Your task to perform on an android device: Go to accessibility settings Image 0: 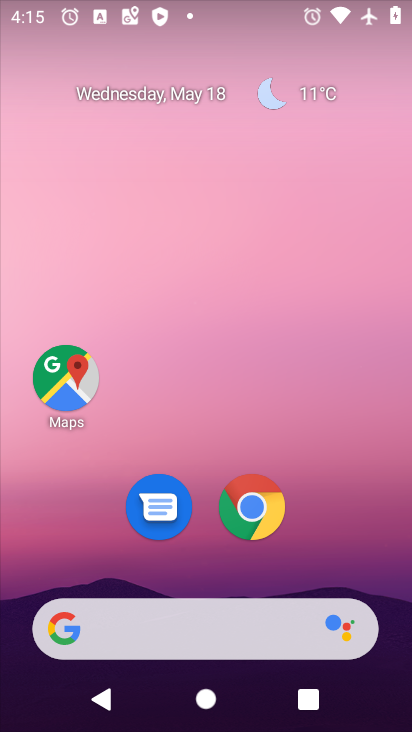
Step 0: drag from (406, 619) to (298, 150)
Your task to perform on an android device: Go to accessibility settings Image 1: 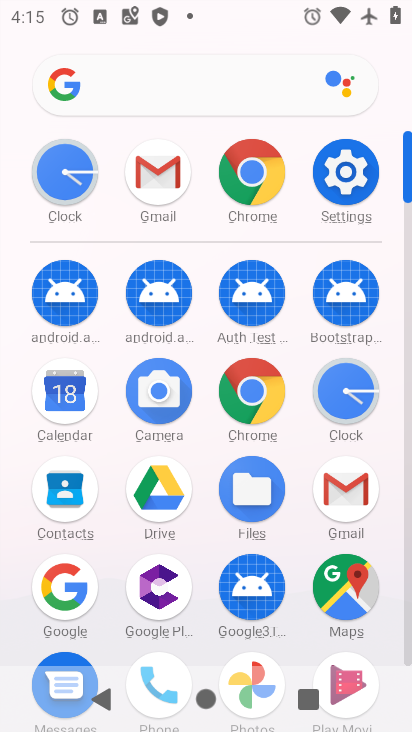
Step 1: click (410, 655)
Your task to perform on an android device: Go to accessibility settings Image 2: 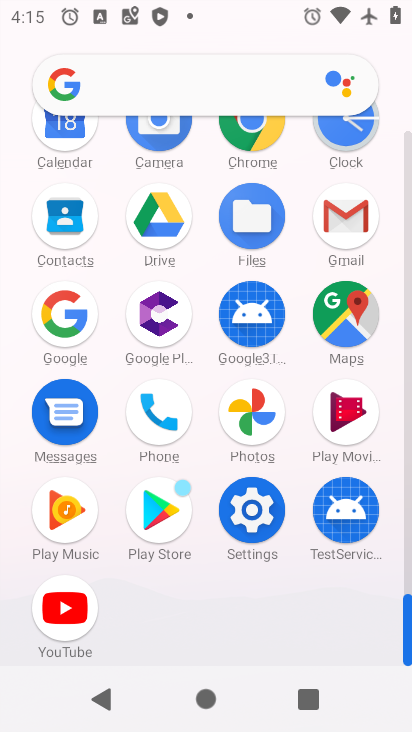
Step 2: click (250, 509)
Your task to perform on an android device: Go to accessibility settings Image 3: 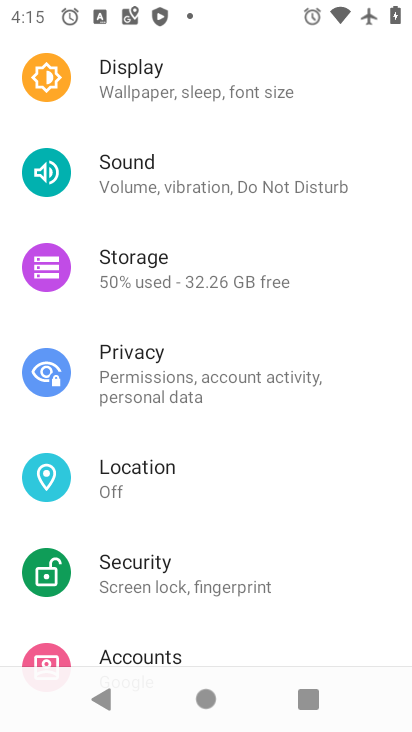
Step 3: drag from (313, 626) to (326, 283)
Your task to perform on an android device: Go to accessibility settings Image 4: 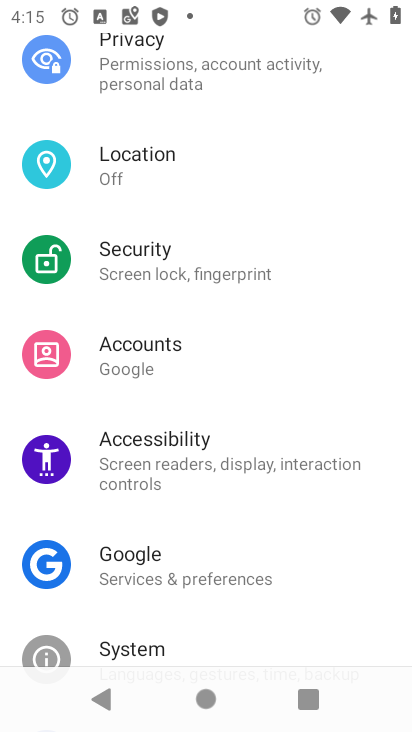
Step 4: click (161, 467)
Your task to perform on an android device: Go to accessibility settings Image 5: 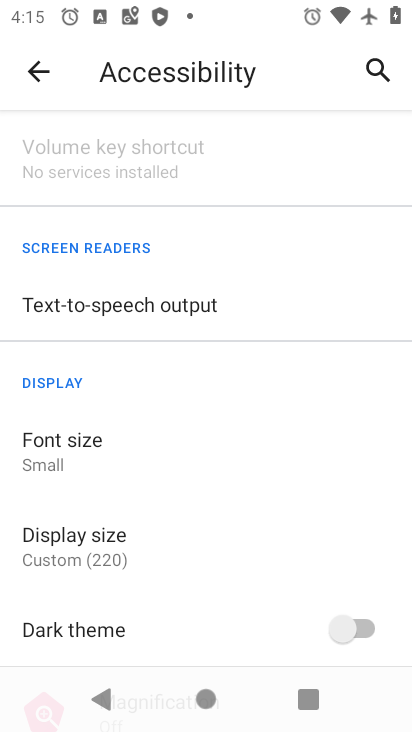
Step 5: task complete